Your task to perform on an android device: Open the calendar and show me this week's events? Image 0: 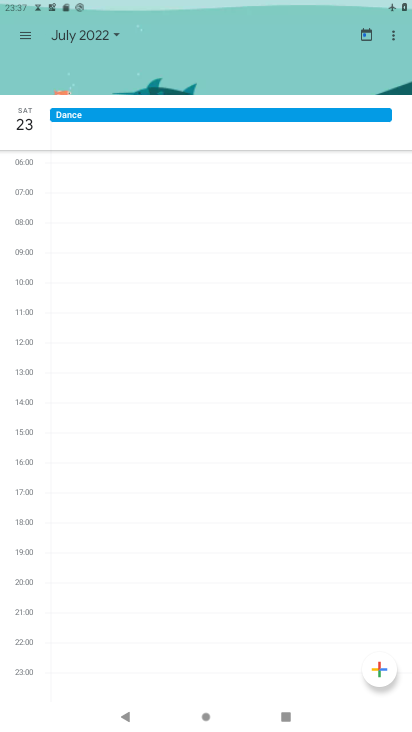
Step 0: press home button
Your task to perform on an android device: Open the calendar and show me this week's events? Image 1: 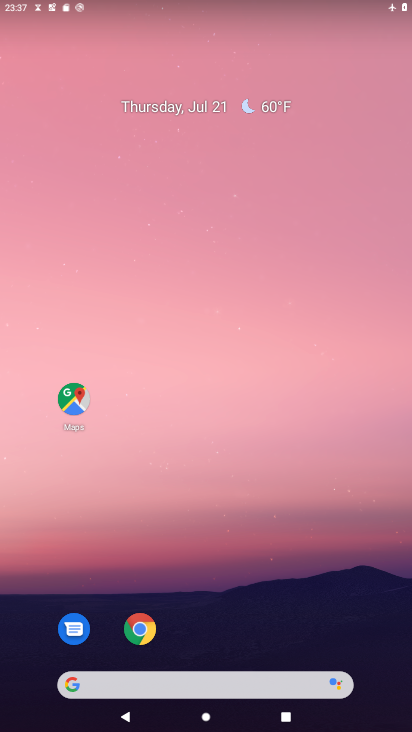
Step 1: drag from (221, 605) to (231, 90)
Your task to perform on an android device: Open the calendar and show me this week's events? Image 2: 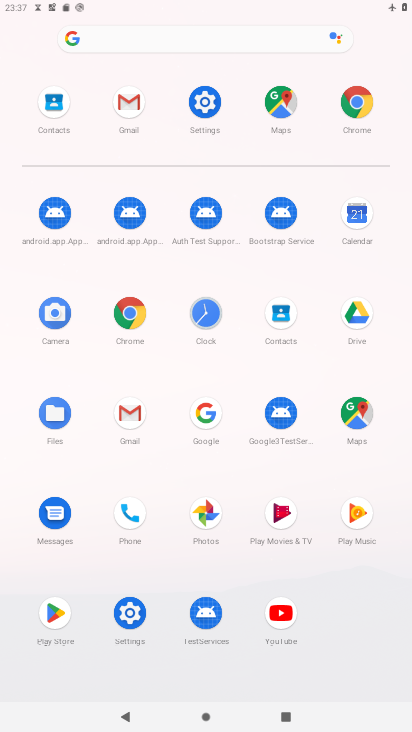
Step 2: click (353, 204)
Your task to perform on an android device: Open the calendar and show me this week's events? Image 3: 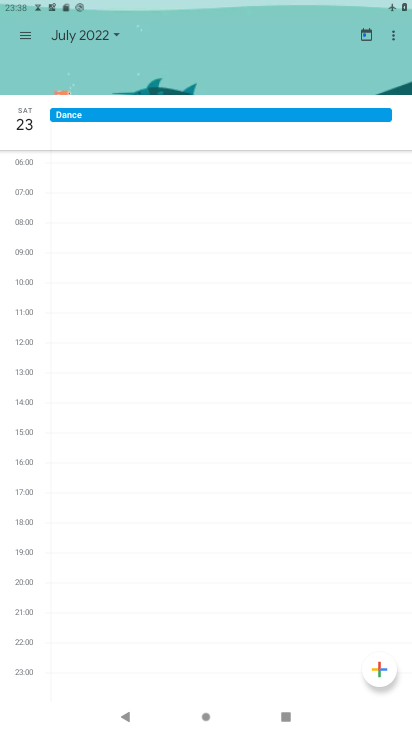
Step 3: click (25, 36)
Your task to perform on an android device: Open the calendar and show me this week's events? Image 4: 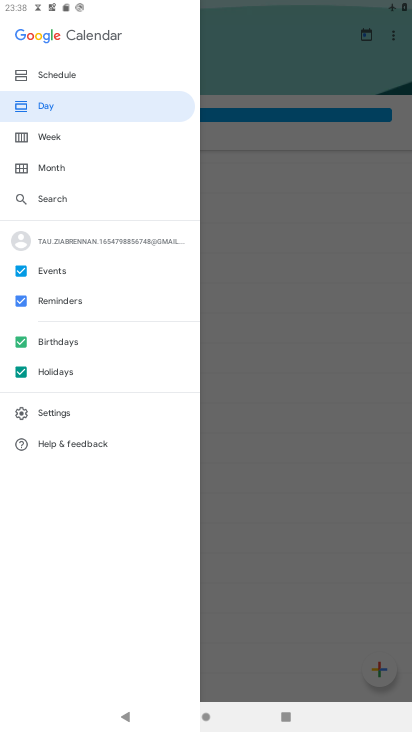
Step 4: click (46, 140)
Your task to perform on an android device: Open the calendar and show me this week's events? Image 5: 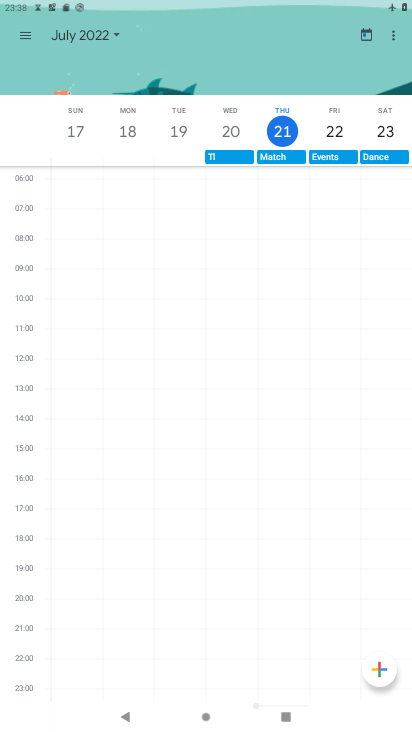
Step 5: task complete